Your task to perform on an android device: change the clock display to analog Image 0: 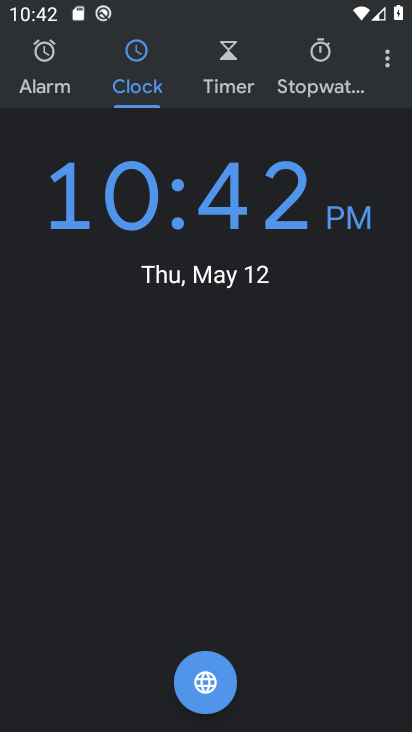
Step 0: press home button
Your task to perform on an android device: change the clock display to analog Image 1: 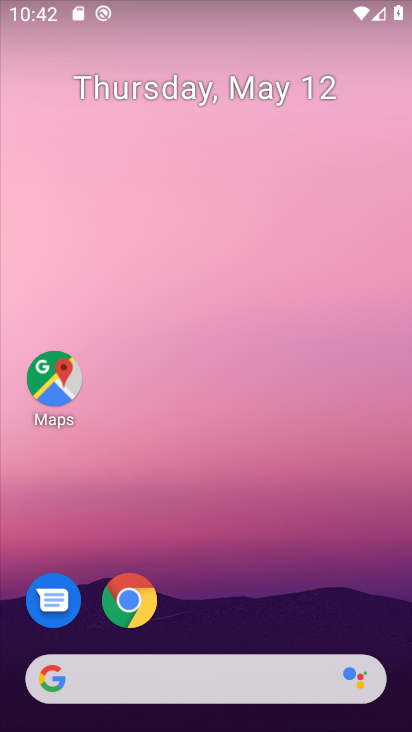
Step 1: drag from (211, 598) to (114, 93)
Your task to perform on an android device: change the clock display to analog Image 2: 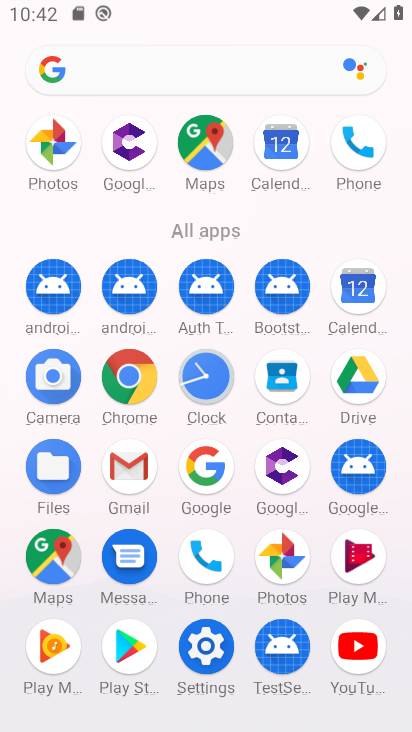
Step 2: click (204, 389)
Your task to perform on an android device: change the clock display to analog Image 3: 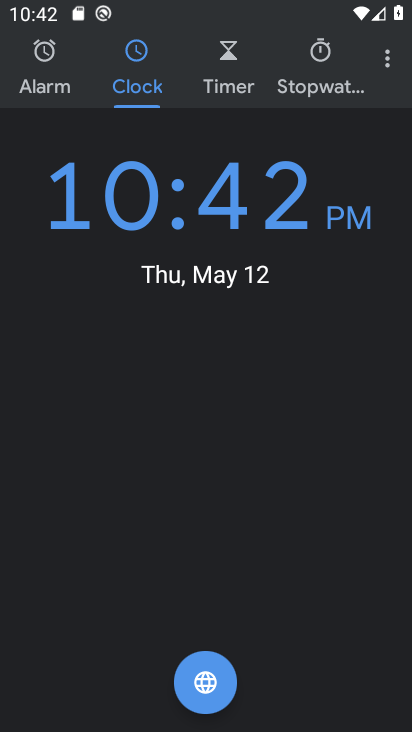
Step 3: click (389, 61)
Your task to perform on an android device: change the clock display to analog Image 4: 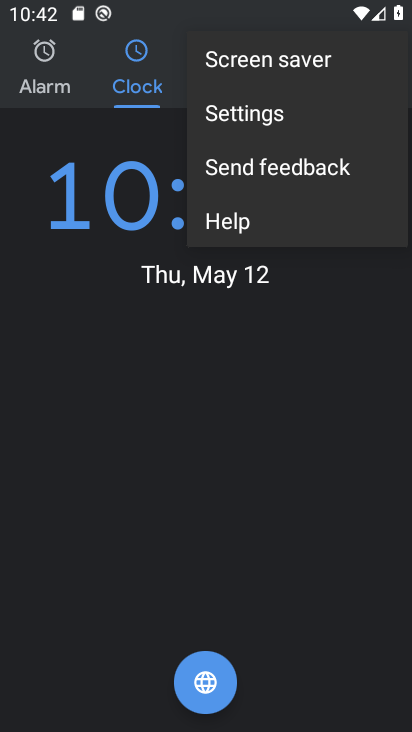
Step 4: click (262, 117)
Your task to perform on an android device: change the clock display to analog Image 5: 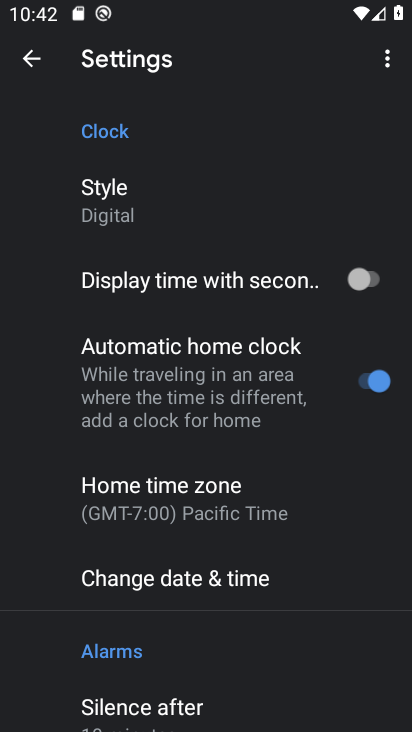
Step 5: click (99, 215)
Your task to perform on an android device: change the clock display to analog Image 6: 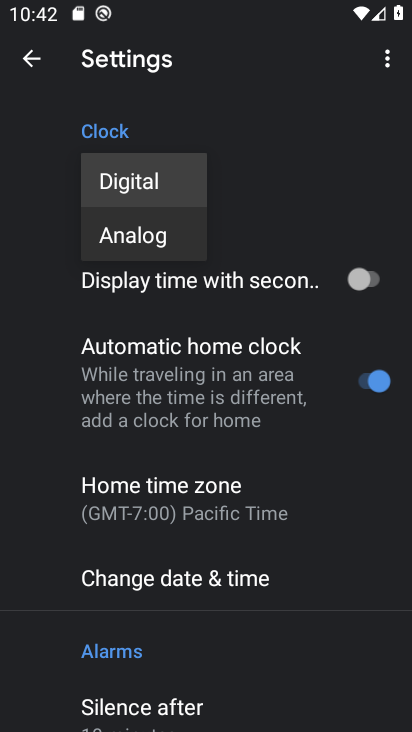
Step 6: click (126, 239)
Your task to perform on an android device: change the clock display to analog Image 7: 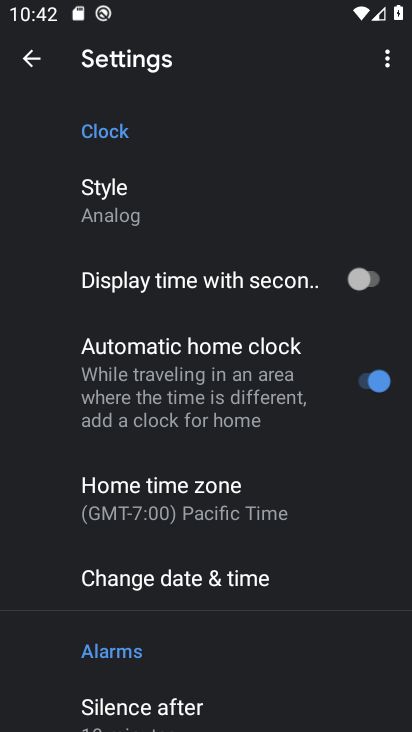
Step 7: task complete